Your task to perform on an android device: Open accessibility settings Image 0: 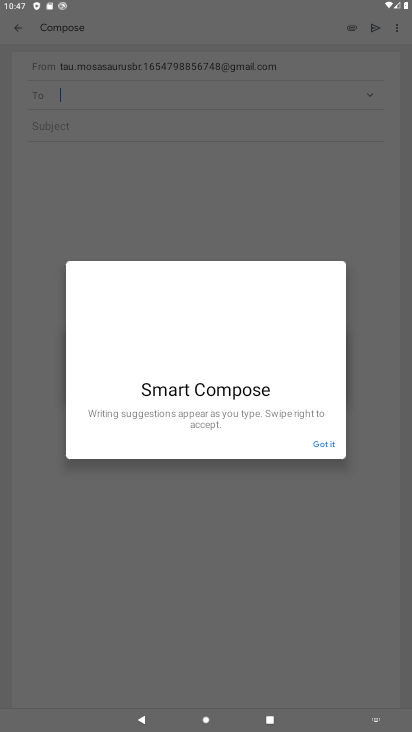
Step 0: press home button
Your task to perform on an android device: Open accessibility settings Image 1: 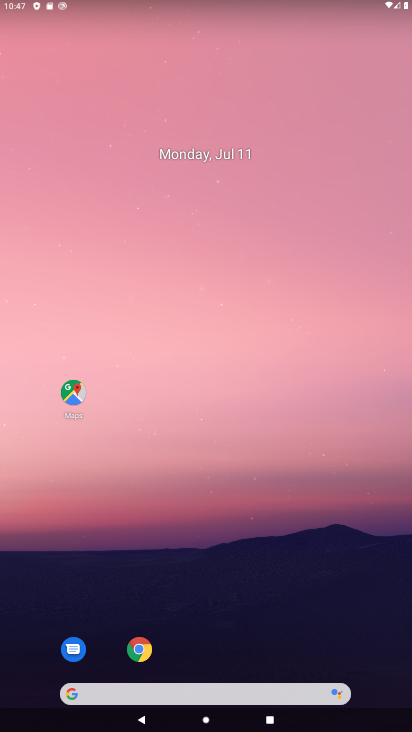
Step 1: drag from (264, 679) to (307, 250)
Your task to perform on an android device: Open accessibility settings Image 2: 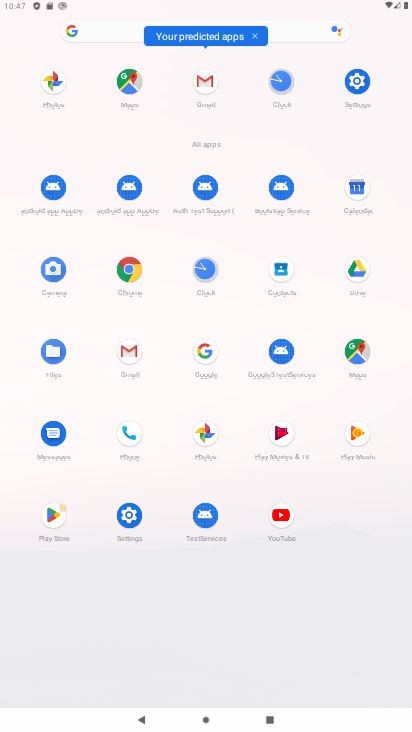
Step 2: click (132, 521)
Your task to perform on an android device: Open accessibility settings Image 3: 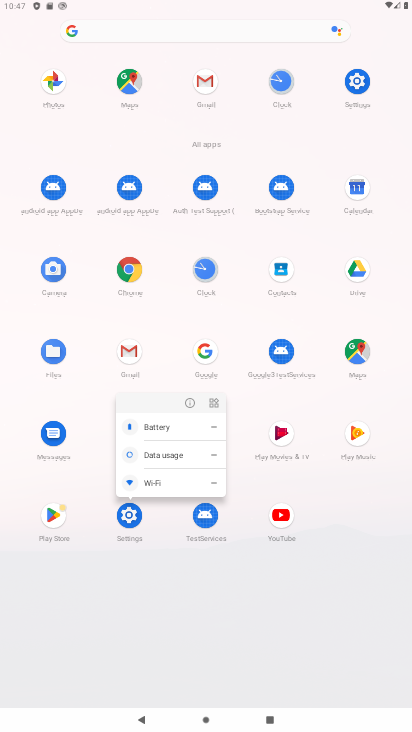
Step 3: click (131, 521)
Your task to perform on an android device: Open accessibility settings Image 4: 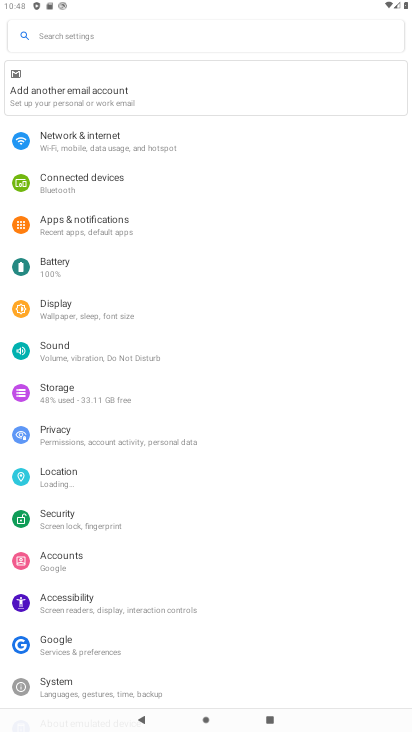
Step 4: click (101, 597)
Your task to perform on an android device: Open accessibility settings Image 5: 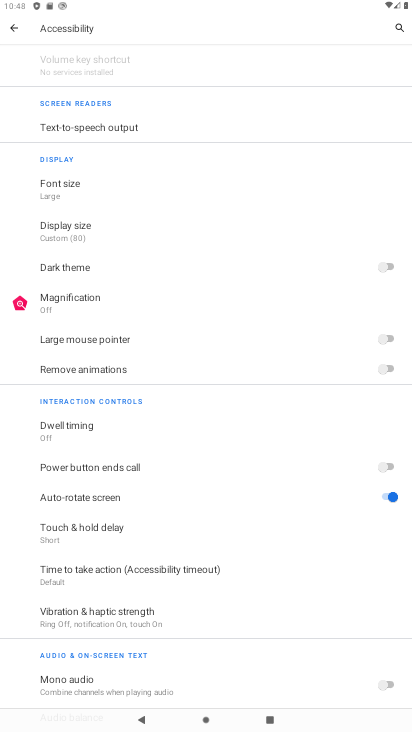
Step 5: task complete